Your task to perform on an android device: manage bookmarks in the chrome app Image 0: 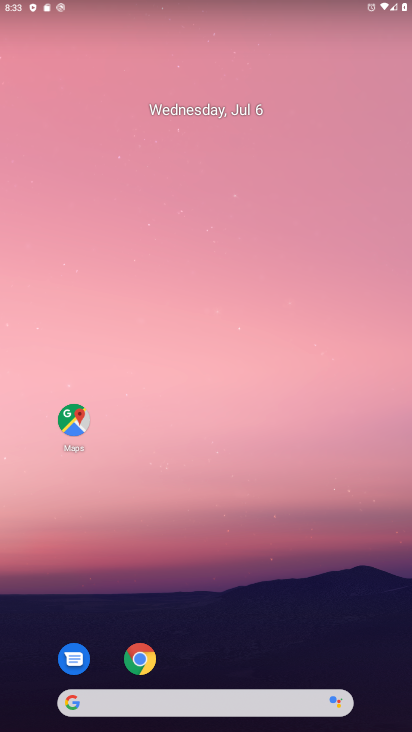
Step 0: drag from (272, 694) to (372, 13)
Your task to perform on an android device: manage bookmarks in the chrome app Image 1: 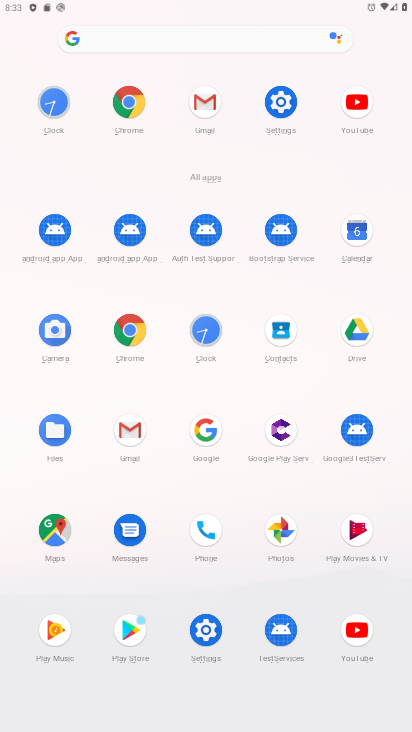
Step 1: click (113, 336)
Your task to perform on an android device: manage bookmarks in the chrome app Image 2: 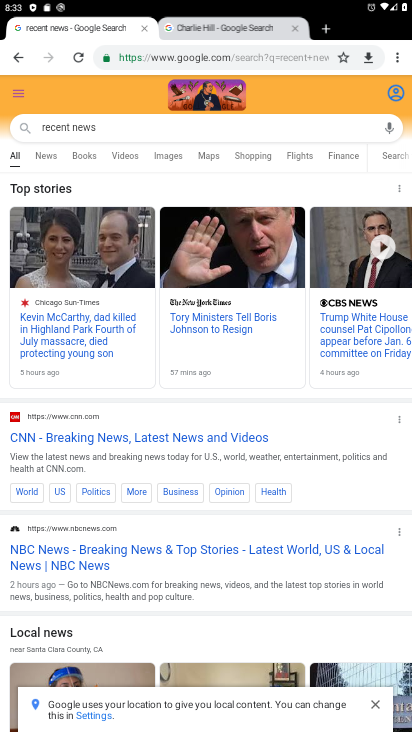
Step 2: click (392, 53)
Your task to perform on an android device: manage bookmarks in the chrome app Image 3: 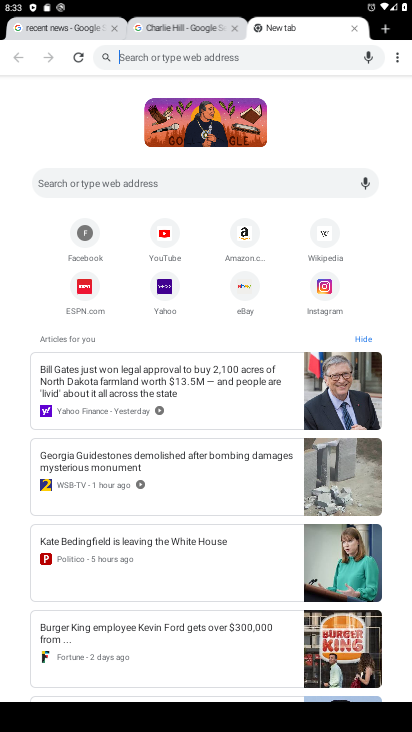
Step 3: task complete